Your task to perform on an android device: Open Chrome and go to settings Image 0: 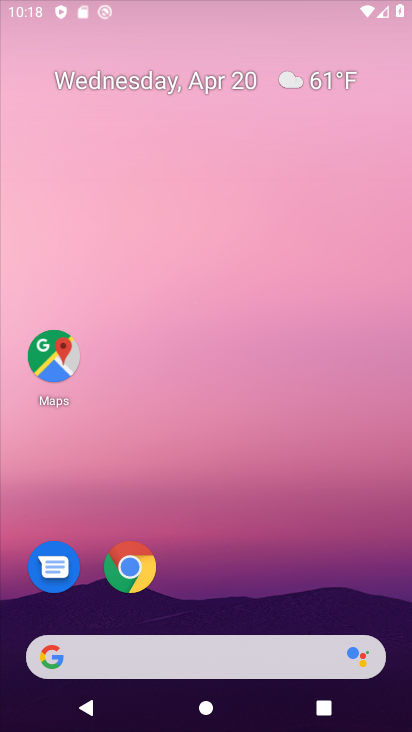
Step 0: drag from (233, 556) to (293, 96)
Your task to perform on an android device: Open Chrome and go to settings Image 1: 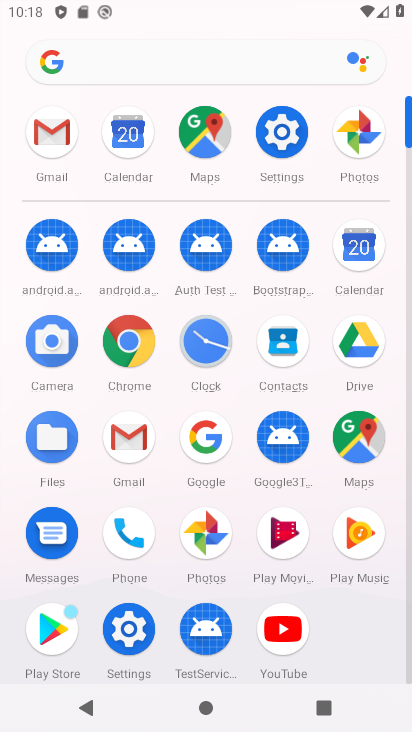
Step 1: click (128, 345)
Your task to perform on an android device: Open Chrome and go to settings Image 2: 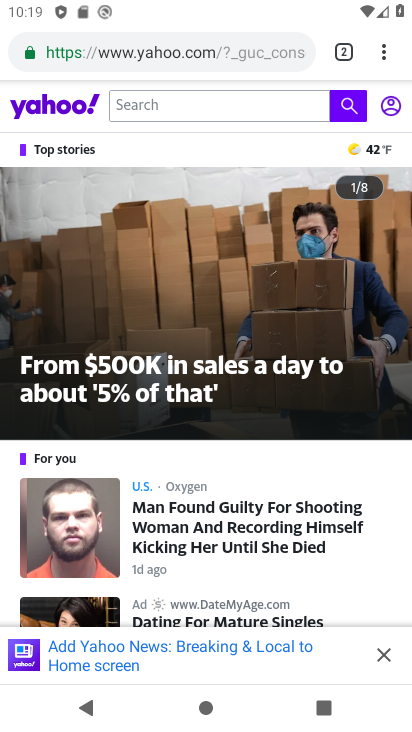
Step 2: click (385, 48)
Your task to perform on an android device: Open Chrome and go to settings Image 3: 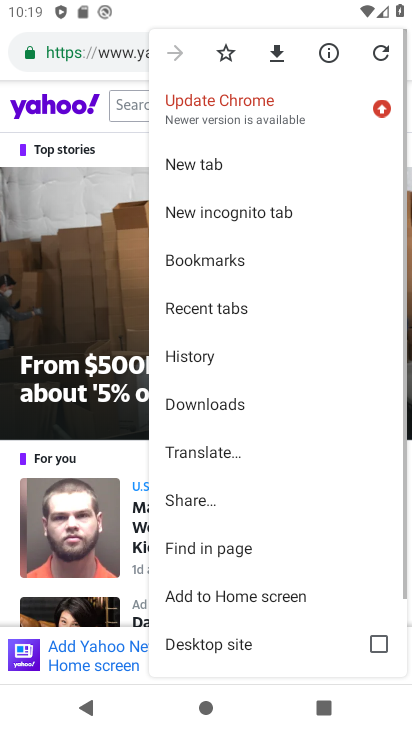
Step 3: drag from (224, 637) to (340, 43)
Your task to perform on an android device: Open Chrome and go to settings Image 4: 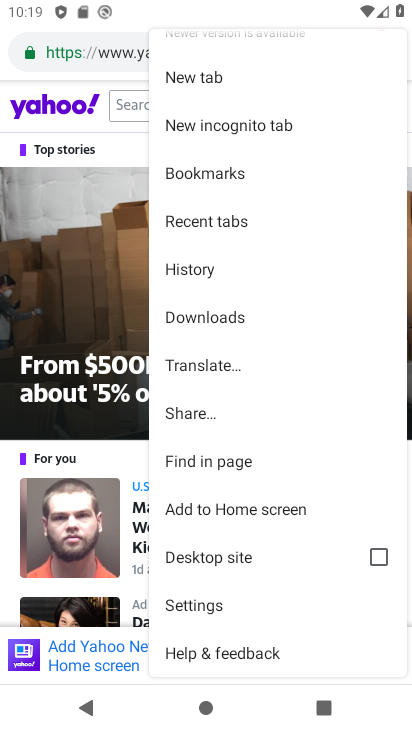
Step 4: click (194, 611)
Your task to perform on an android device: Open Chrome and go to settings Image 5: 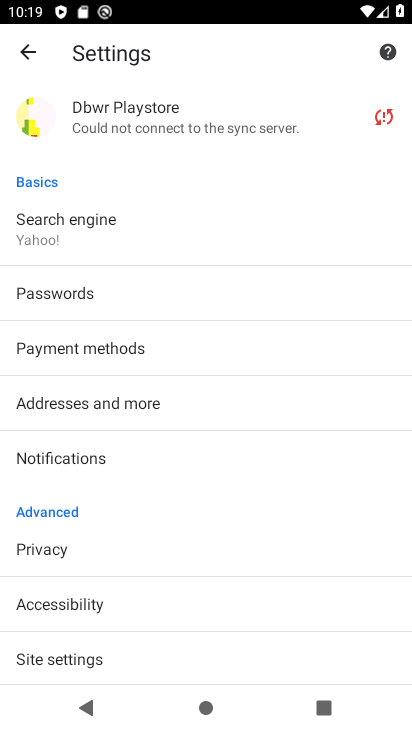
Step 5: task complete